Your task to perform on an android device: toggle airplane mode Image 0: 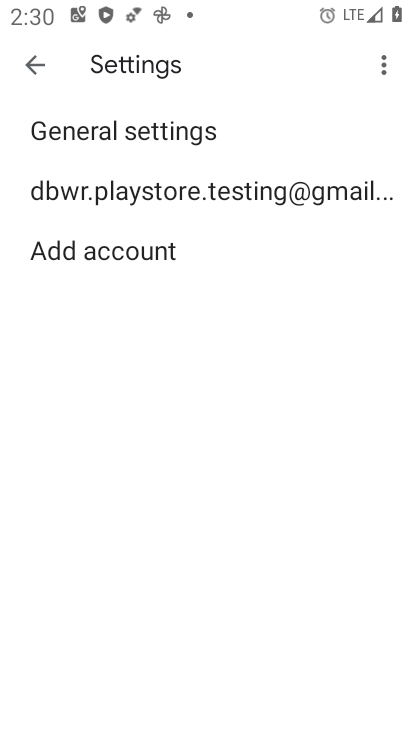
Step 0: press home button
Your task to perform on an android device: toggle airplane mode Image 1: 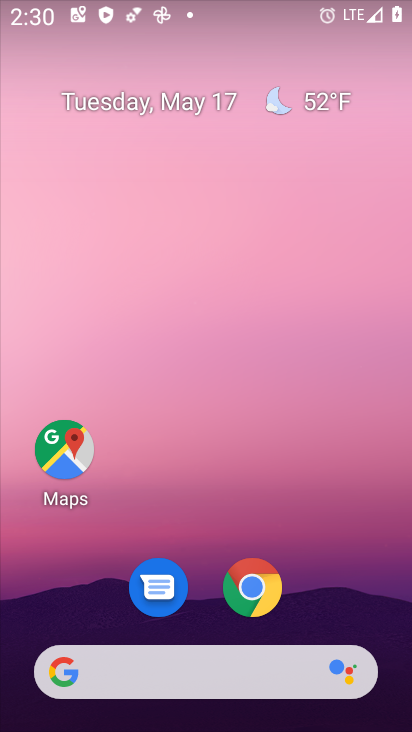
Step 1: drag from (378, 601) to (326, 283)
Your task to perform on an android device: toggle airplane mode Image 2: 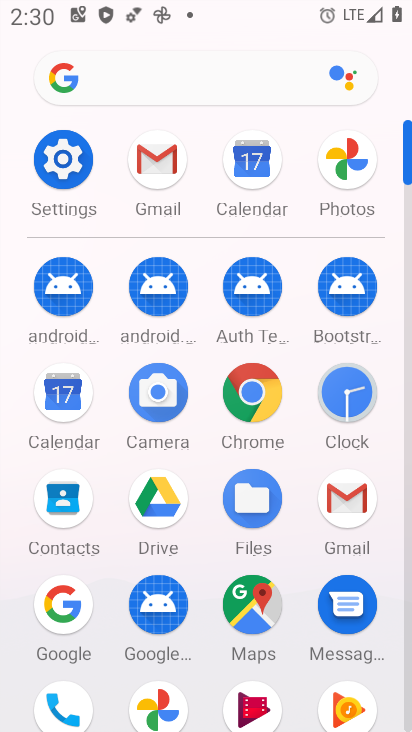
Step 2: click (67, 184)
Your task to perform on an android device: toggle airplane mode Image 3: 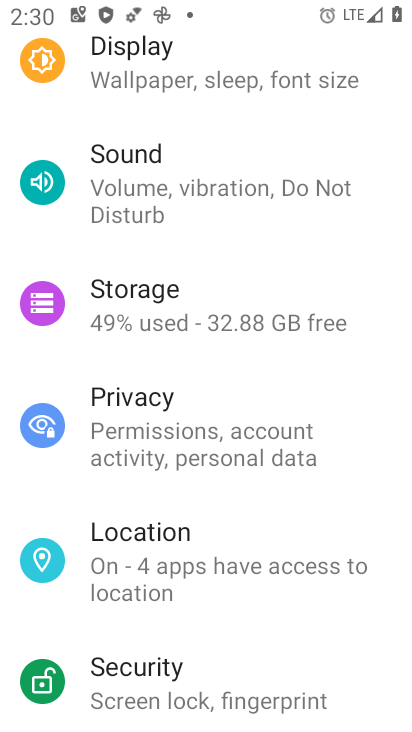
Step 3: drag from (207, 141) to (172, 671)
Your task to perform on an android device: toggle airplane mode Image 4: 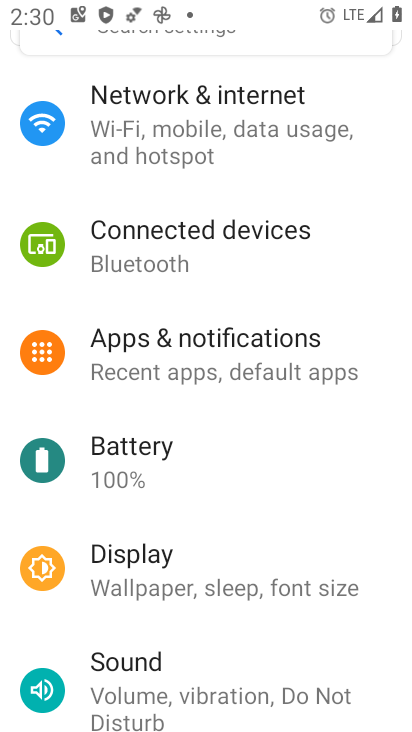
Step 4: click (164, 151)
Your task to perform on an android device: toggle airplane mode Image 5: 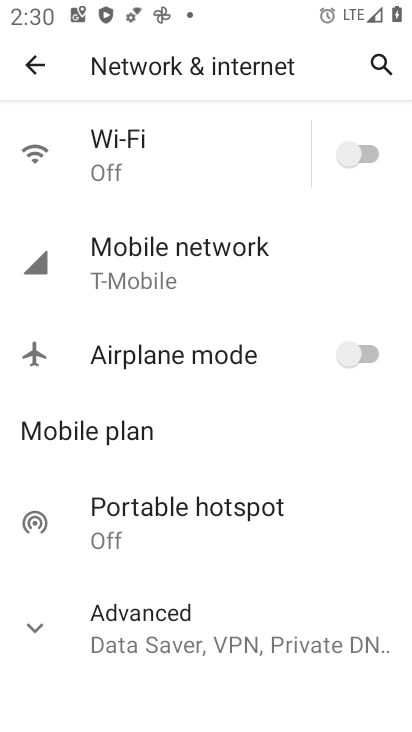
Step 5: click (343, 335)
Your task to perform on an android device: toggle airplane mode Image 6: 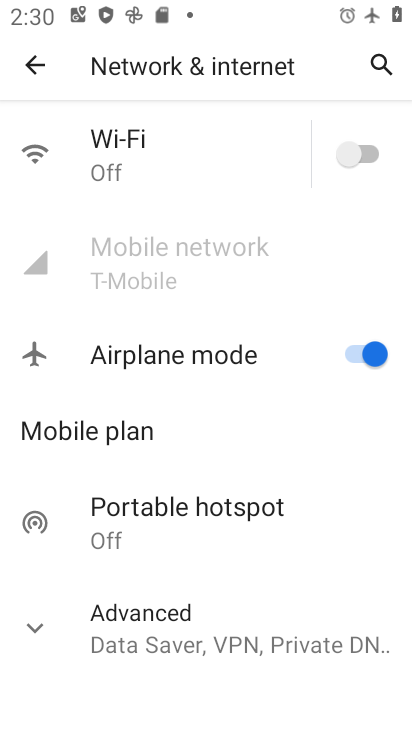
Step 6: click (360, 149)
Your task to perform on an android device: toggle airplane mode Image 7: 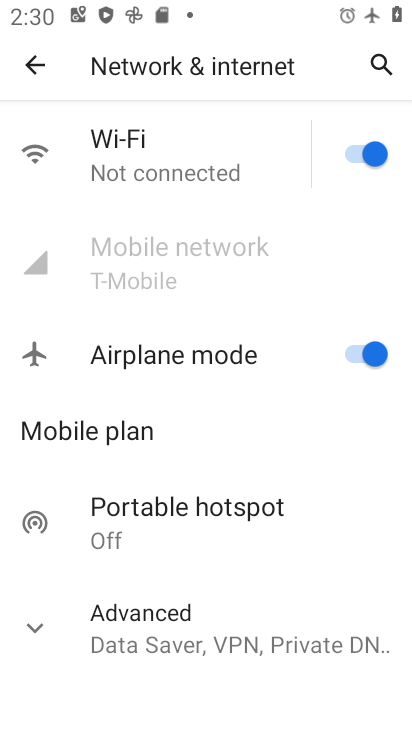
Step 7: task complete